Your task to perform on an android device: What is the news today? Image 0: 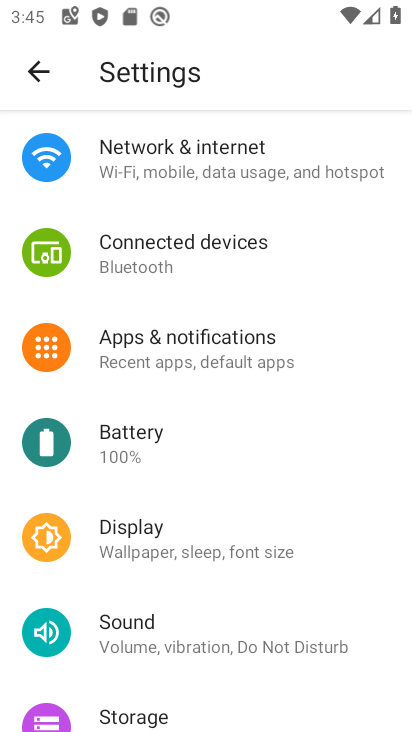
Step 0: press home button
Your task to perform on an android device: What is the news today? Image 1: 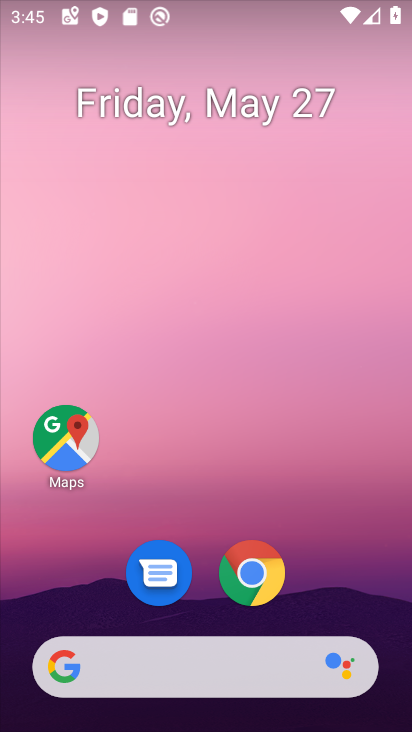
Step 1: click (204, 655)
Your task to perform on an android device: What is the news today? Image 2: 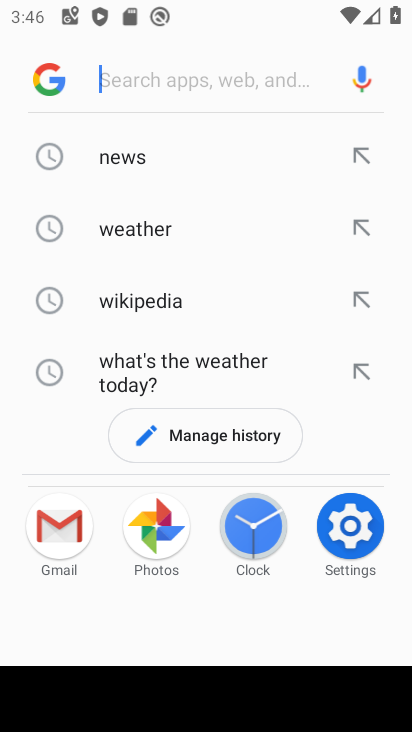
Step 2: click (113, 161)
Your task to perform on an android device: What is the news today? Image 3: 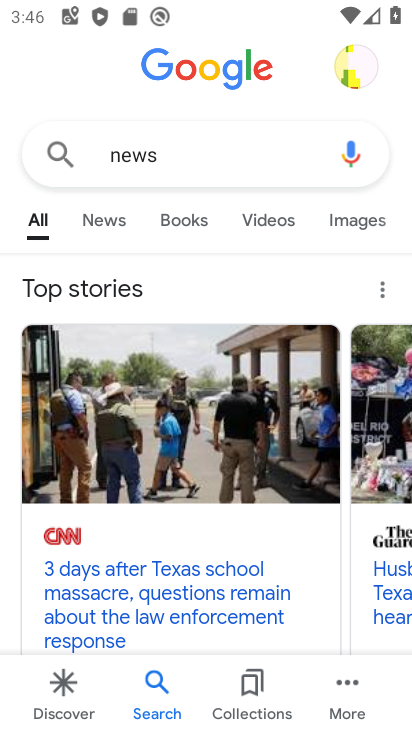
Step 3: click (94, 211)
Your task to perform on an android device: What is the news today? Image 4: 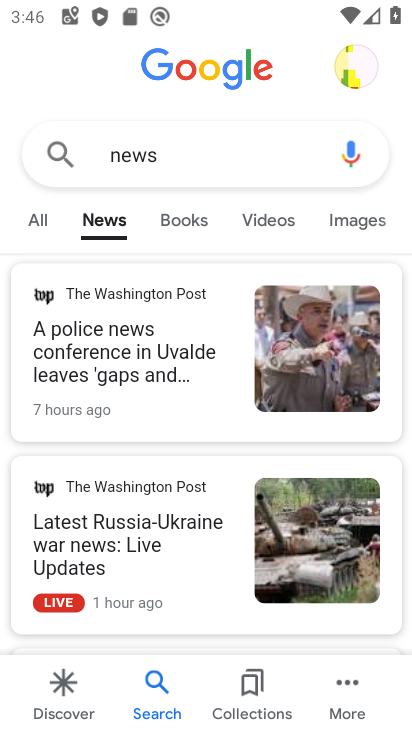
Step 4: task complete